Your task to perform on an android device: Search for pizza restaurants on Maps Image 0: 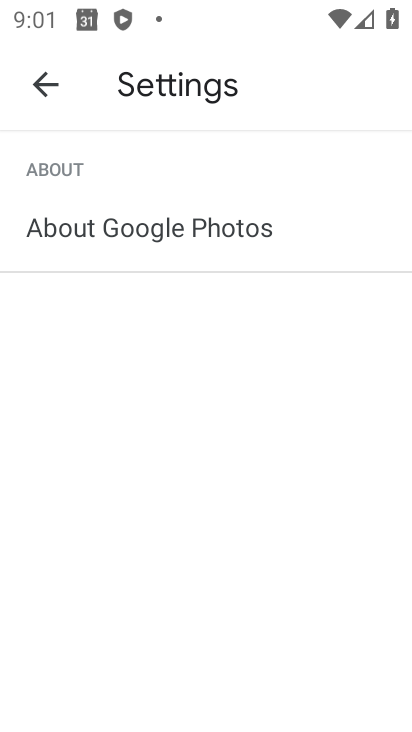
Step 0: press back button
Your task to perform on an android device: Search for pizza restaurants on Maps Image 1: 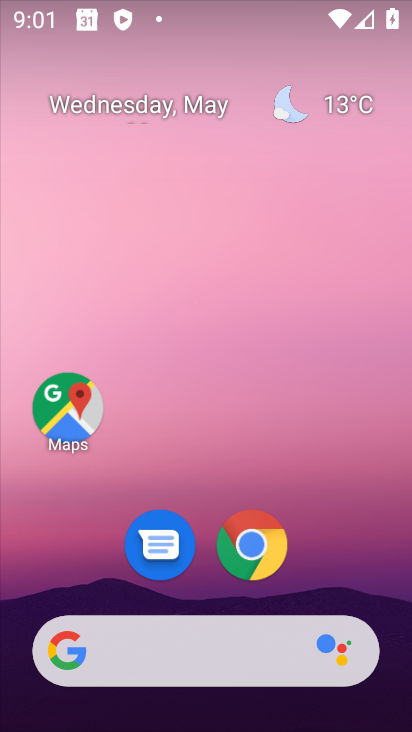
Step 1: drag from (320, 569) to (292, 18)
Your task to perform on an android device: Search for pizza restaurants on Maps Image 2: 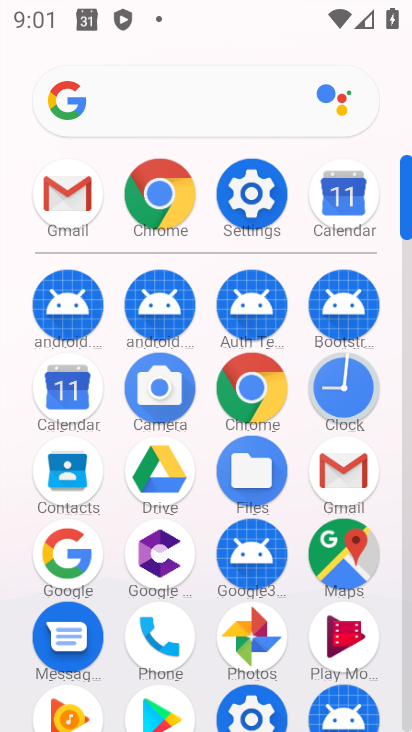
Step 2: drag from (10, 595) to (9, 293)
Your task to perform on an android device: Search for pizza restaurants on Maps Image 3: 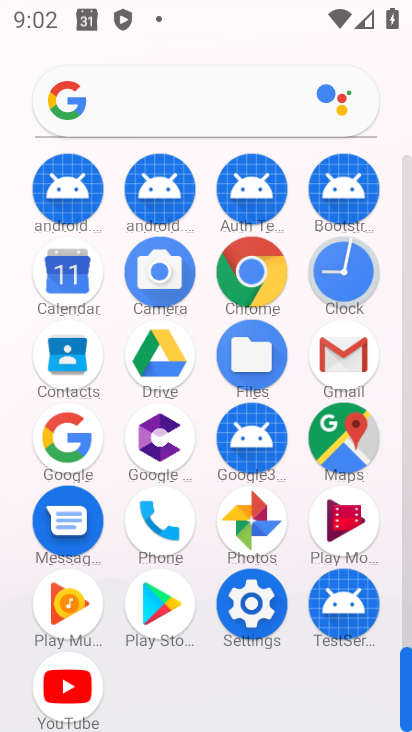
Step 3: click (343, 436)
Your task to perform on an android device: Search for pizza restaurants on Maps Image 4: 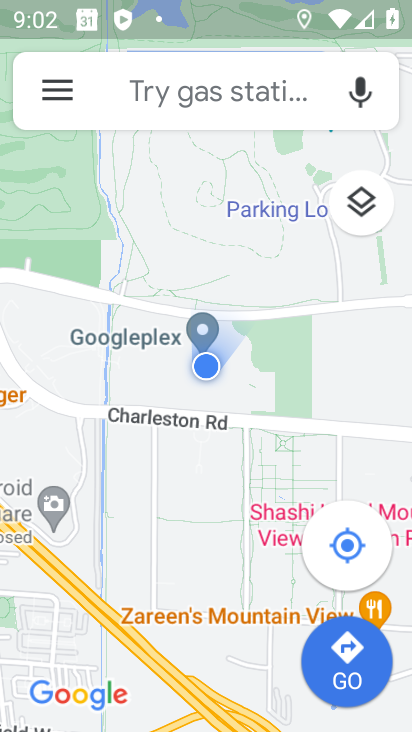
Step 4: click (119, 89)
Your task to perform on an android device: Search for pizza restaurants on Maps Image 5: 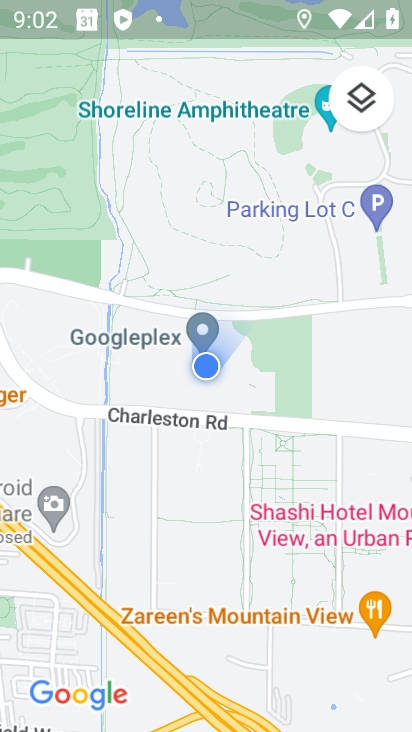
Step 5: drag from (262, 127) to (254, 432)
Your task to perform on an android device: Search for pizza restaurants on Maps Image 6: 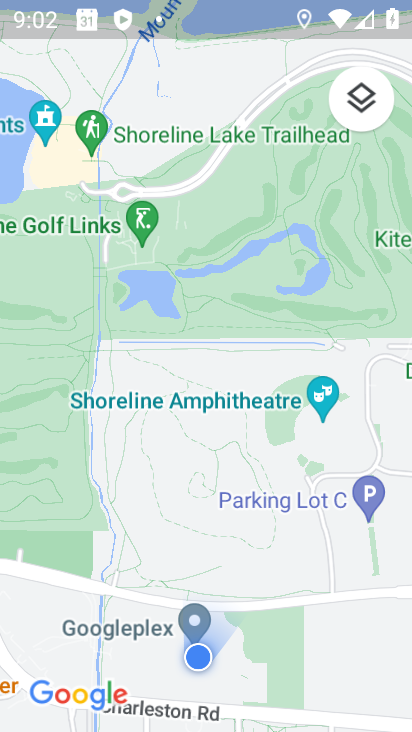
Step 6: drag from (229, 388) to (230, 226)
Your task to perform on an android device: Search for pizza restaurants on Maps Image 7: 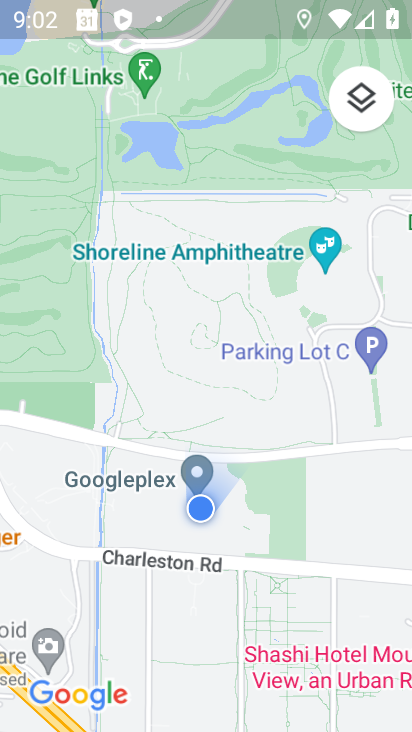
Step 7: press back button
Your task to perform on an android device: Search for pizza restaurants on Maps Image 8: 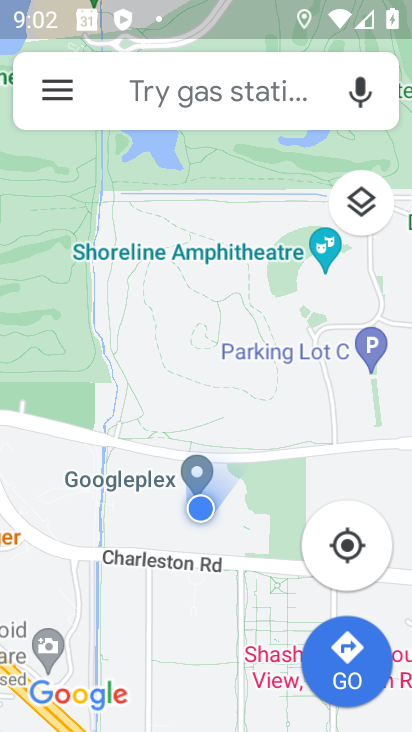
Step 8: click (142, 83)
Your task to perform on an android device: Search for pizza restaurants on Maps Image 9: 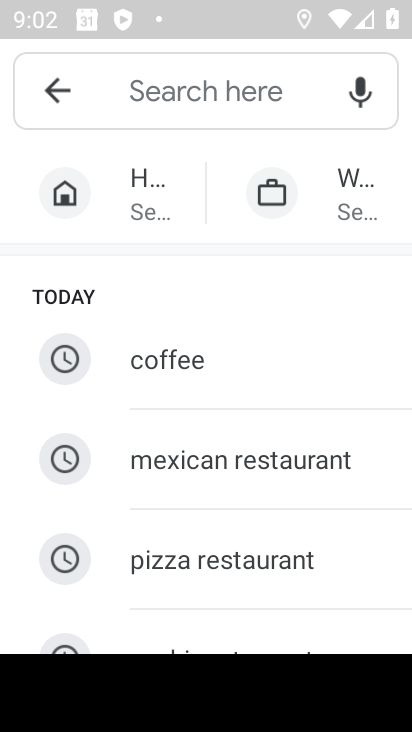
Step 9: click (121, 88)
Your task to perform on an android device: Search for pizza restaurants on Maps Image 10: 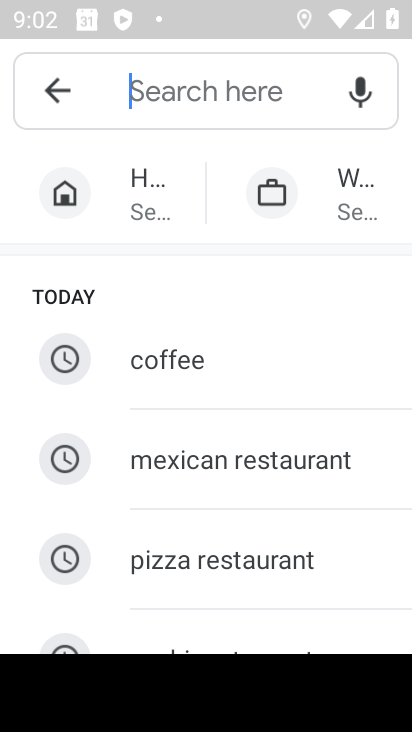
Step 10: click (208, 573)
Your task to perform on an android device: Search for pizza restaurants on Maps Image 11: 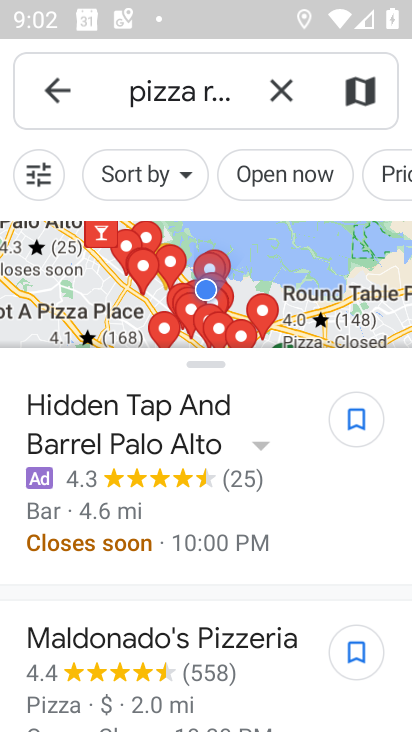
Step 11: task complete